Your task to perform on an android device: turn off location history Image 0: 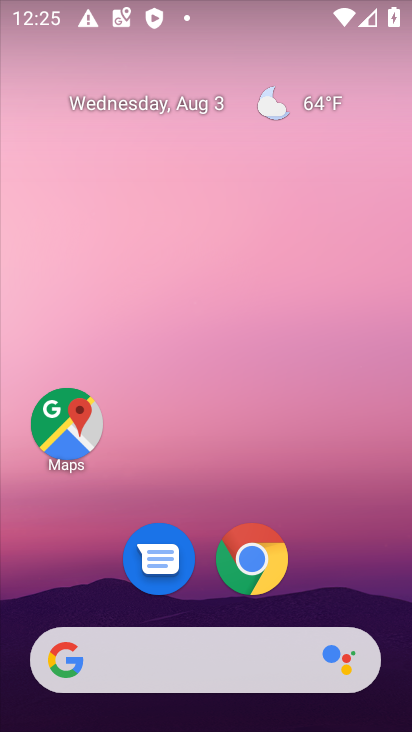
Step 0: drag from (202, 619) to (198, 324)
Your task to perform on an android device: turn off location history Image 1: 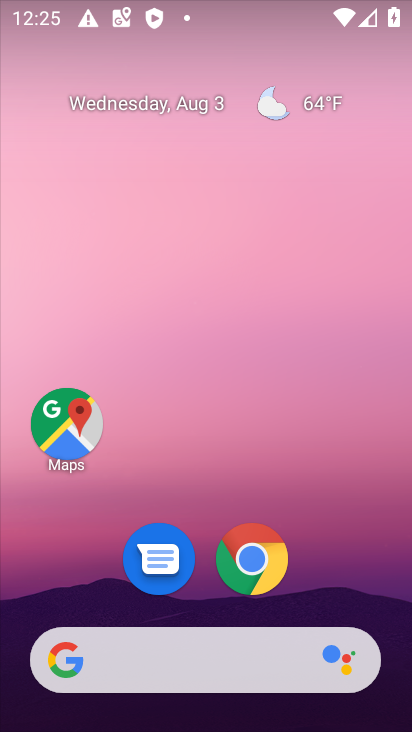
Step 1: drag from (209, 603) to (209, 128)
Your task to perform on an android device: turn off location history Image 2: 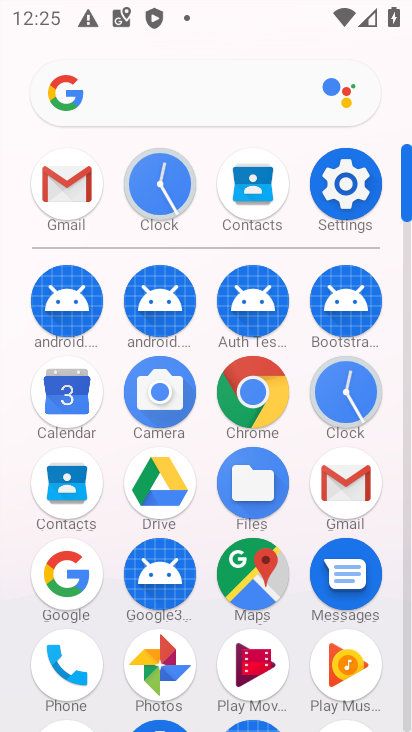
Step 2: click (335, 196)
Your task to perform on an android device: turn off location history Image 3: 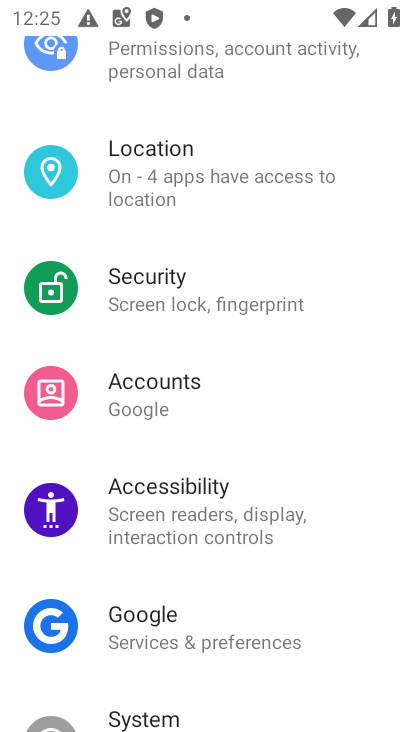
Step 3: drag from (191, 680) to (204, 270)
Your task to perform on an android device: turn off location history Image 4: 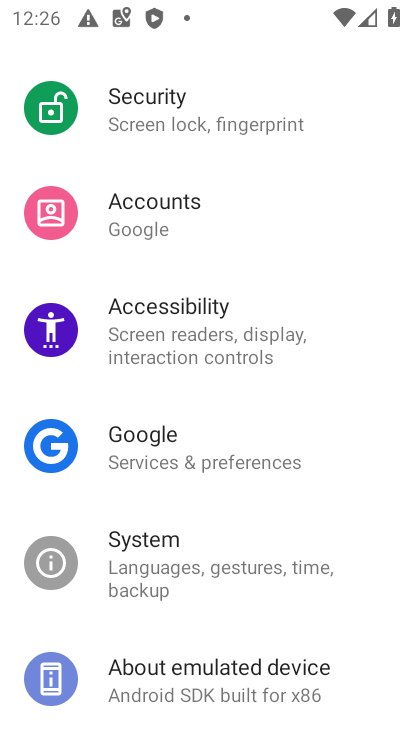
Step 4: drag from (243, 97) to (223, 562)
Your task to perform on an android device: turn off location history Image 5: 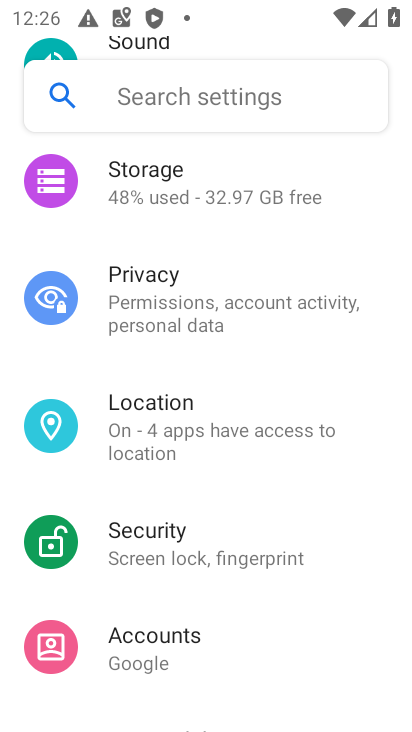
Step 5: click (154, 426)
Your task to perform on an android device: turn off location history Image 6: 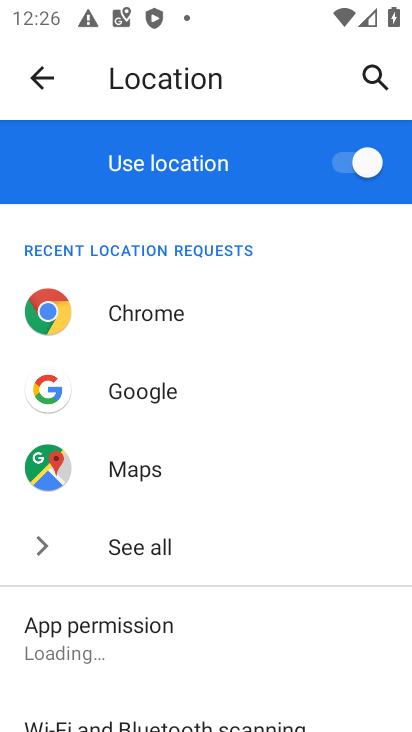
Step 6: drag from (182, 674) to (183, 596)
Your task to perform on an android device: turn off location history Image 7: 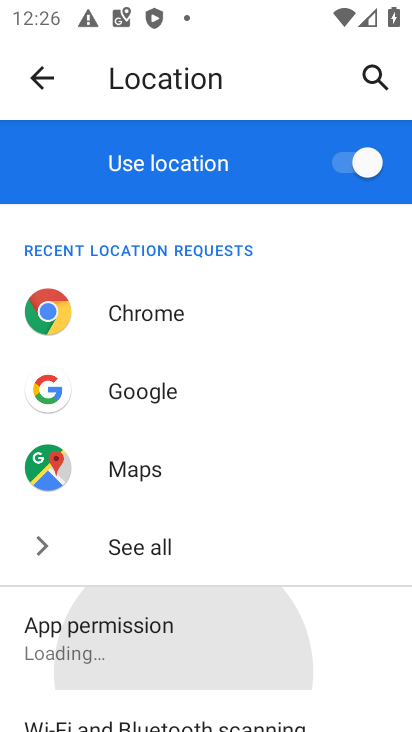
Step 7: drag from (192, 477) to (224, 252)
Your task to perform on an android device: turn off location history Image 8: 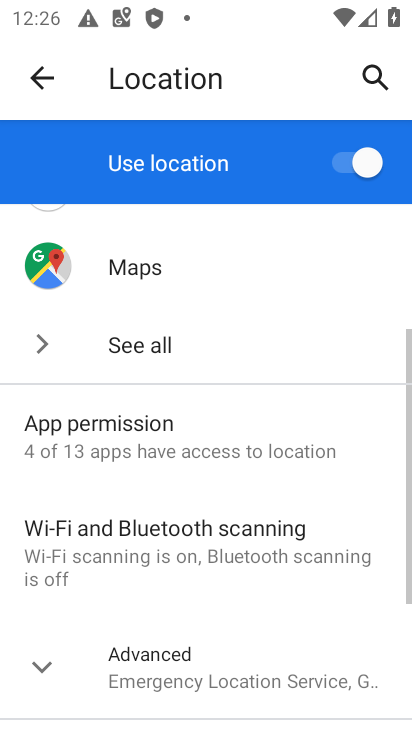
Step 8: click (161, 670)
Your task to perform on an android device: turn off location history Image 9: 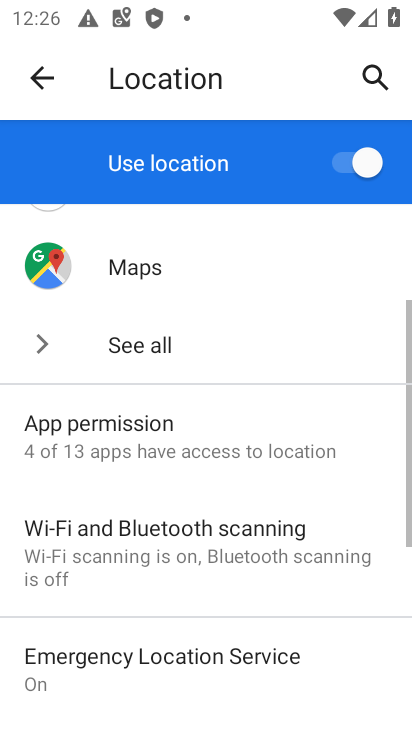
Step 9: drag from (238, 682) to (233, 345)
Your task to perform on an android device: turn off location history Image 10: 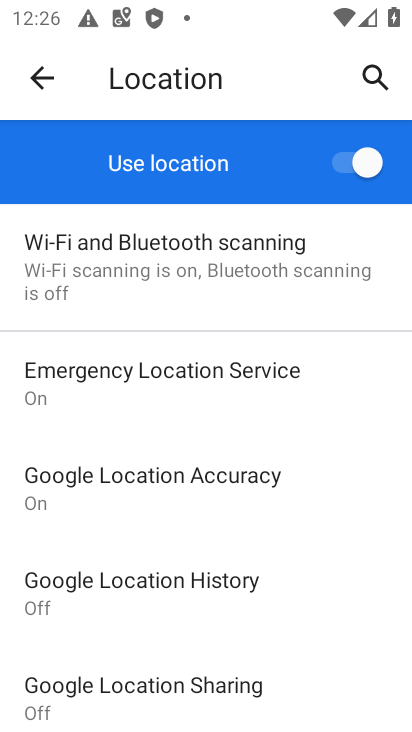
Step 10: click (157, 583)
Your task to perform on an android device: turn off location history Image 11: 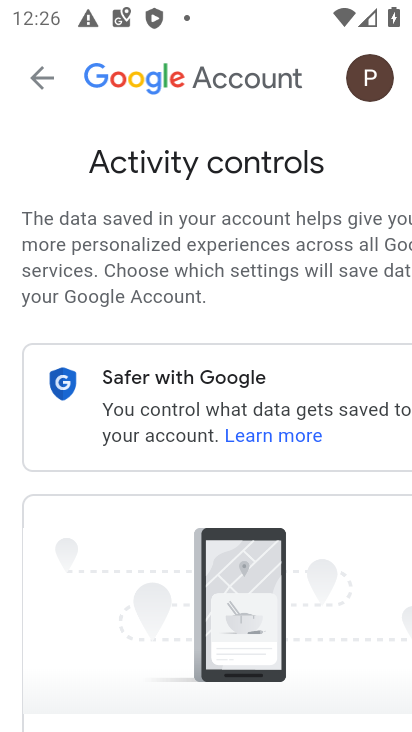
Step 11: task complete